Your task to perform on an android device: Go to Yahoo.com Image 0: 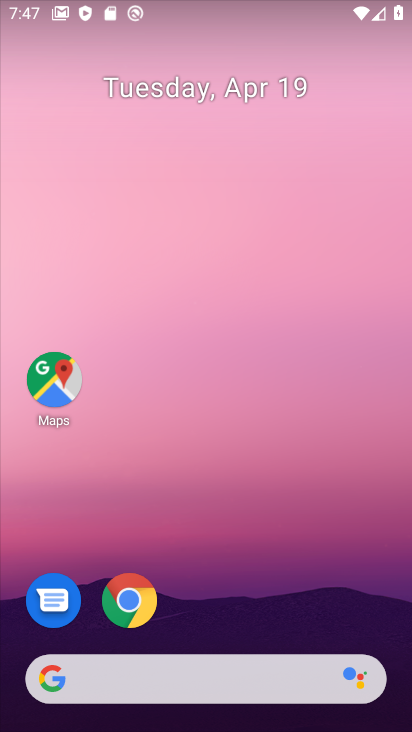
Step 0: click (406, 594)
Your task to perform on an android device: Go to Yahoo.com Image 1: 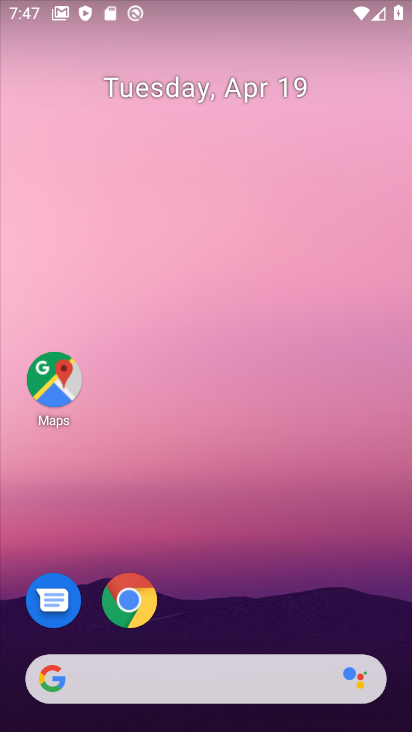
Step 1: drag from (261, 631) to (291, 57)
Your task to perform on an android device: Go to Yahoo.com Image 2: 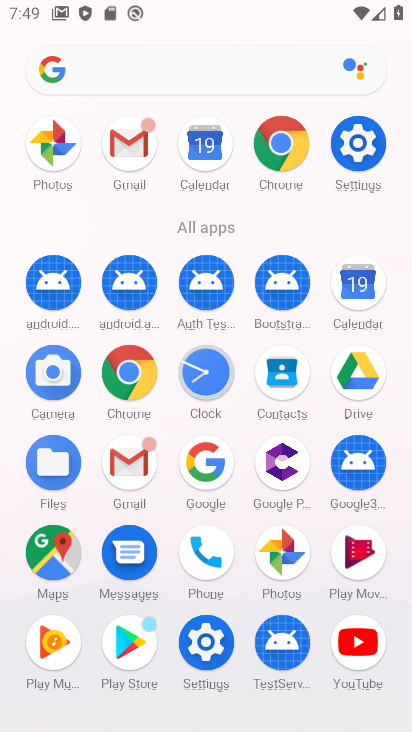
Step 2: click (273, 148)
Your task to perform on an android device: Go to Yahoo.com Image 3: 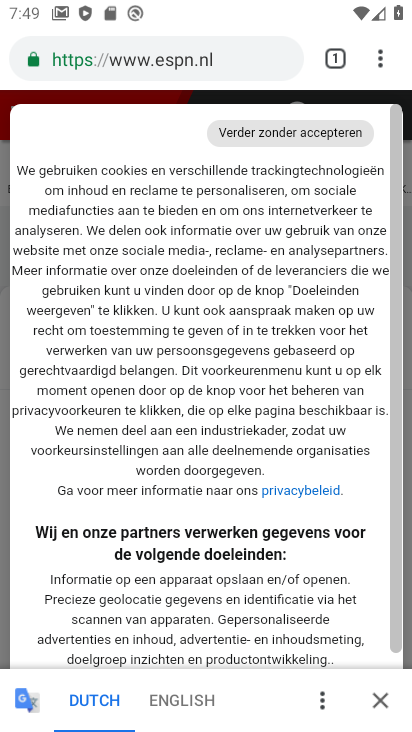
Step 3: press back button
Your task to perform on an android device: Go to Yahoo.com Image 4: 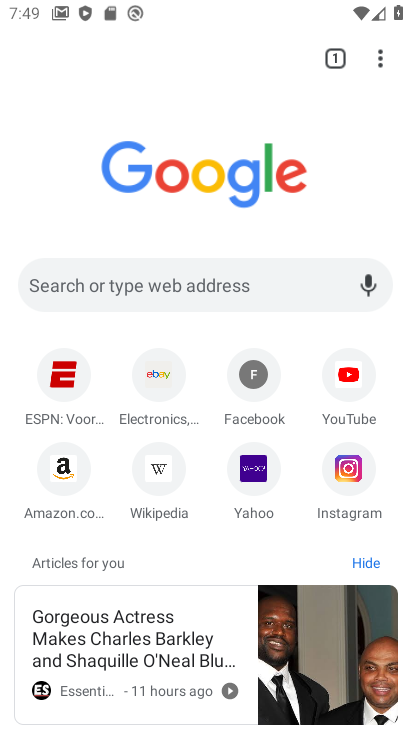
Step 4: click (243, 485)
Your task to perform on an android device: Go to Yahoo.com Image 5: 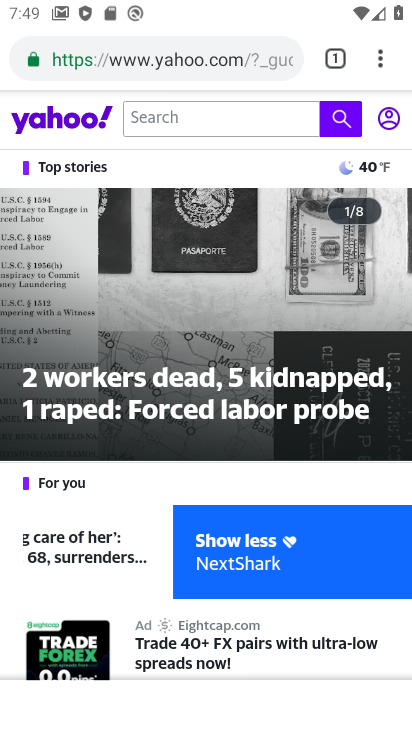
Step 5: task complete